Your task to perform on an android device: Show me productivity apps on the Play Store Image 0: 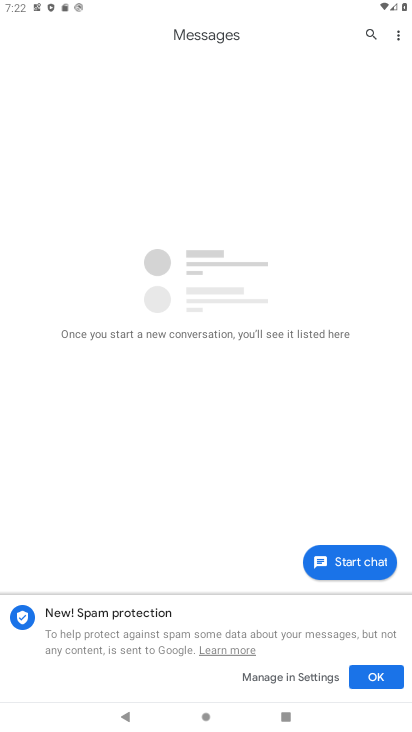
Step 0: press home button
Your task to perform on an android device: Show me productivity apps on the Play Store Image 1: 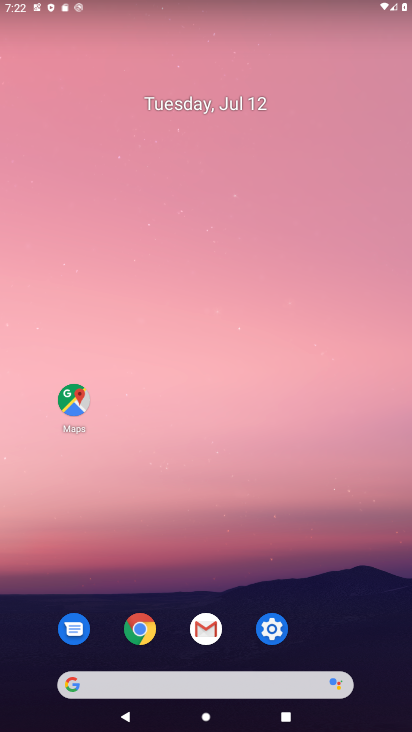
Step 1: drag from (198, 694) to (270, 276)
Your task to perform on an android device: Show me productivity apps on the Play Store Image 2: 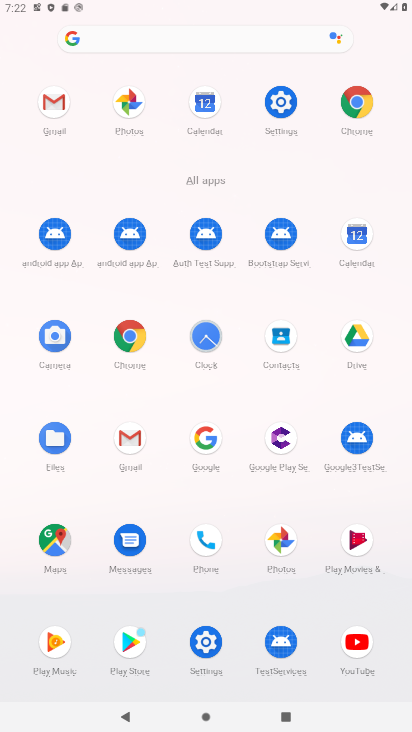
Step 2: click (129, 655)
Your task to perform on an android device: Show me productivity apps on the Play Store Image 3: 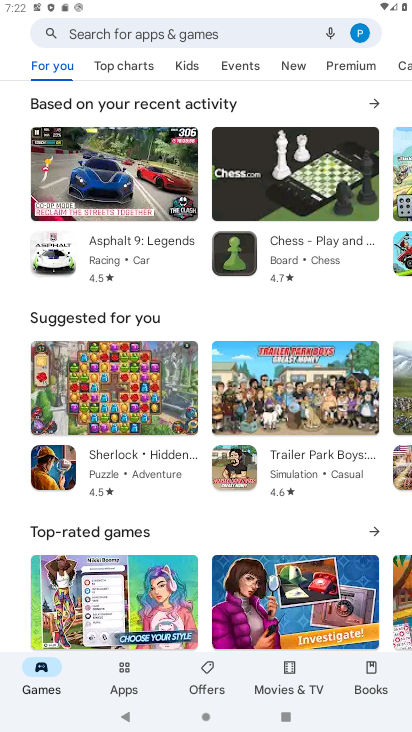
Step 3: click (141, 38)
Your task to perform on an android device: Show me productivity apps on the Play Store Image 4: 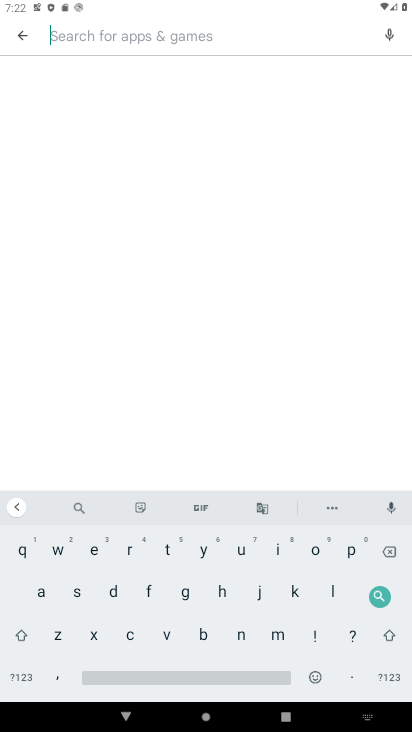
Step 4: click (352, 554)
Your task to perform on an android device: Show me productivity apps on the Play Store Image 5: 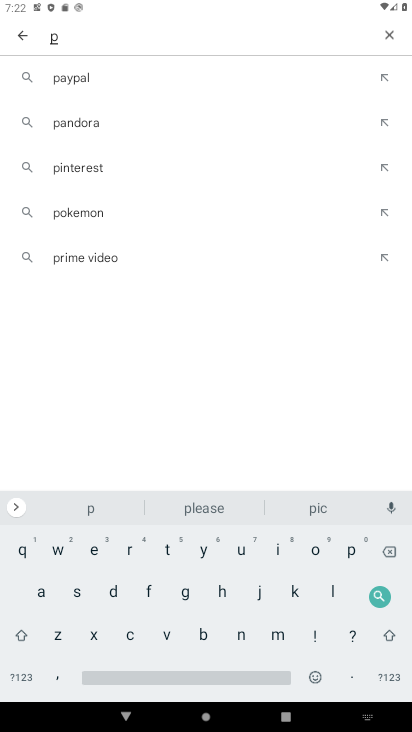
Step 5: click (128, 549)
Your task to perform on an android device: Show me productivity apps on the Play Store Image 6: 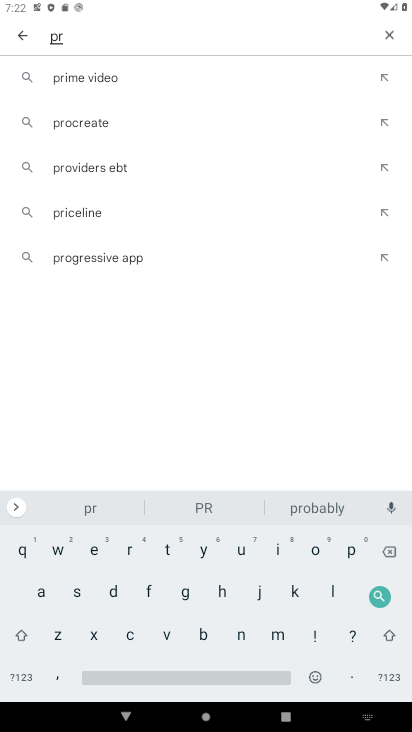
Step 6: click (318, 548)
Your task to perform on an android device: Show me productivity apps on the Play Store Image 7: 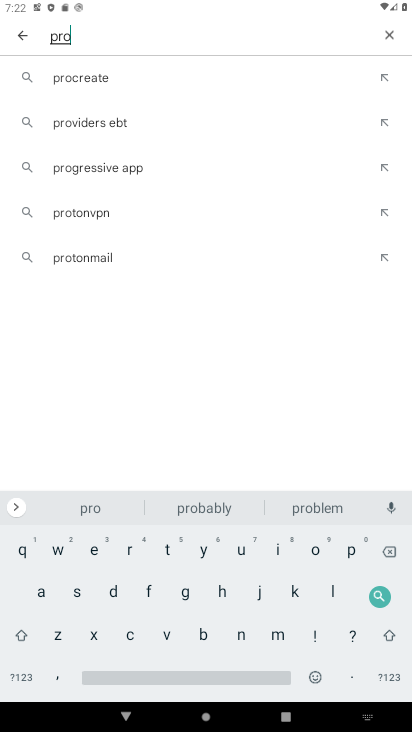
Step 7: click (108, 594)
Your task to perform on an android device: Show me productivity apps on the Play Store Image 8: 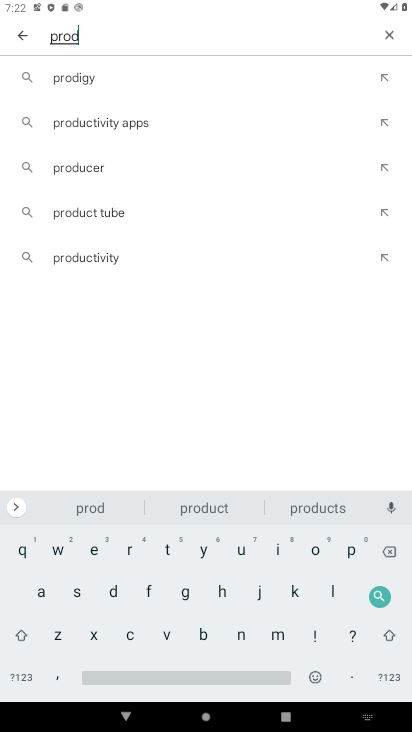
Step 8: click (120, 114)
Your task to perform on an android device: Show me productivity apps on the Play Store Image 9: 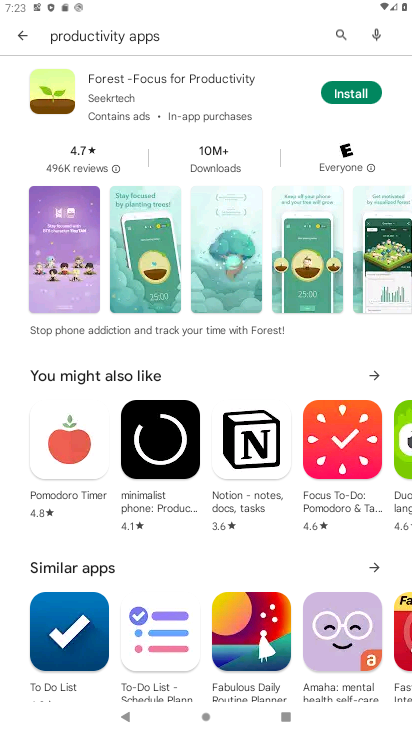
Step 9: task complete